Your task to perform on an android device: turn smart compose on in the gmail app Image 0: 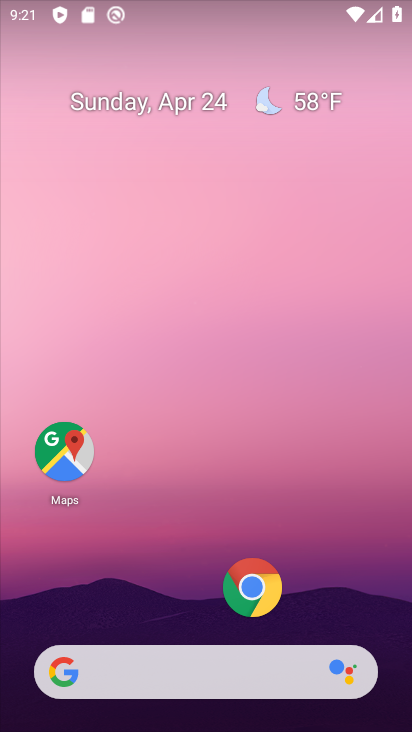
Step 0: drag from (120, 631) to (276, 117)
Your task to perform on an android device: turn smart compose on in the gmail app Image 1: 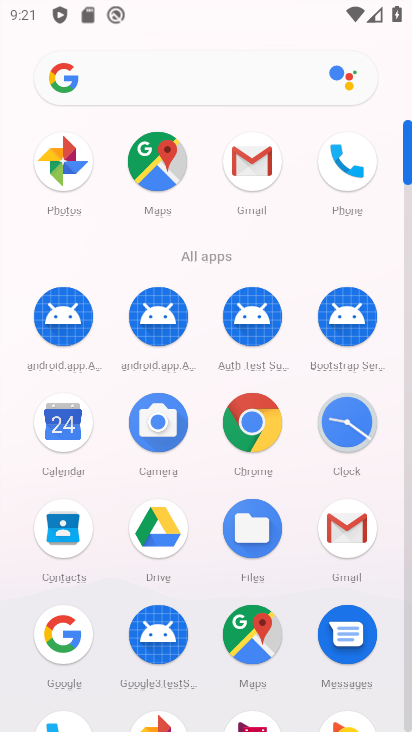
Step 1: click (336, 530)
Your task to perform on an android device: turn smart compose on in the gmail app Image 2: 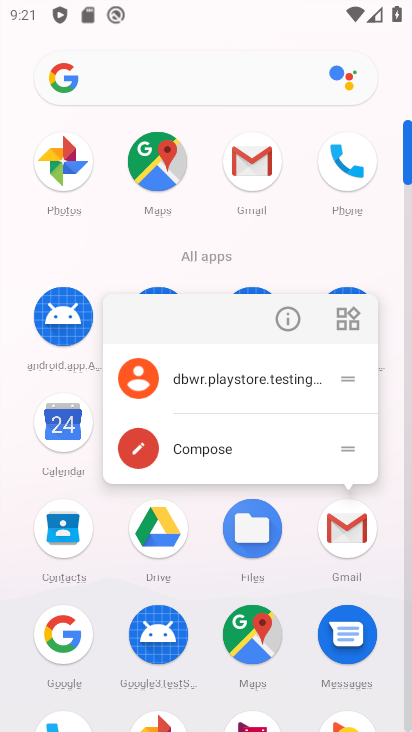
Step 2: click (343, 524)
Your task to perform on an android device: turn smart compose on in the gmail app Image 3: 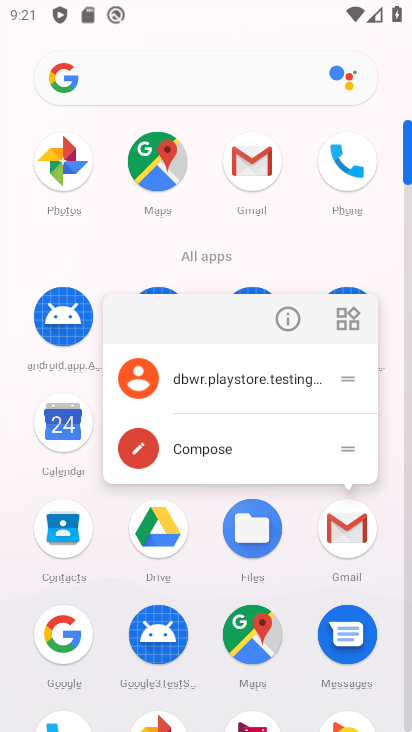
Step 3: click (346, 538)
Your task to perform on an android device: turn smart compose on in the gmail app Image 4: 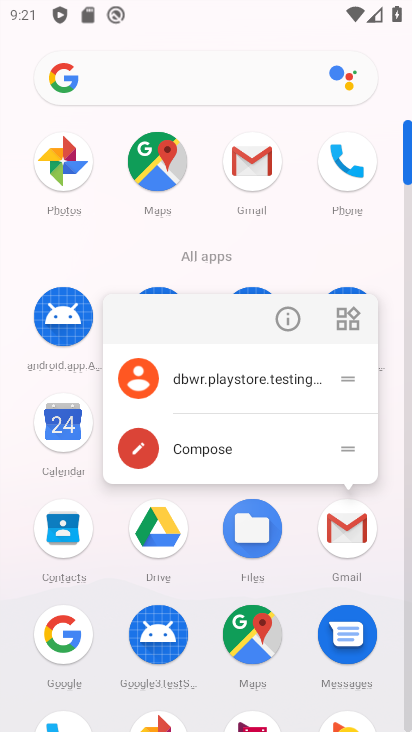
Step 4: click (345, 539)
Your task to perform on an android device: turn smart compose on in the gmail app Image 5: 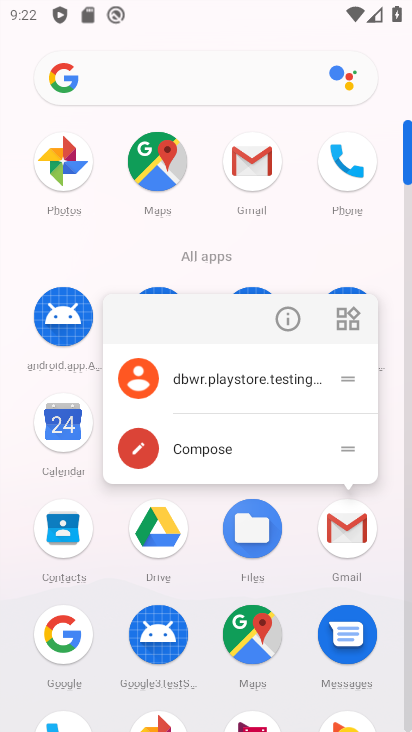
Step 5: click (361, 548)
Your task to perform on an android device: turn smart compose on in the gmail app Image 6: 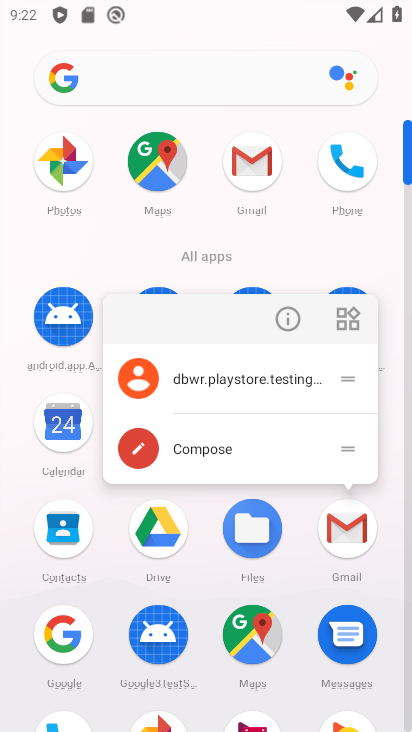
Step 6: click (358, 531)
Your task to perform on an android device: turn smart compose on in the gmail app Image 7: 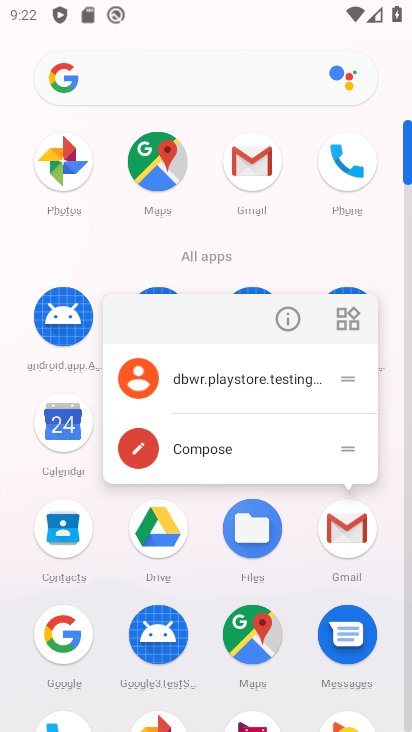
Step 7: click (334, 550)
Your task to perform on an android device: turn smart compose on in the gmail app Image 8: 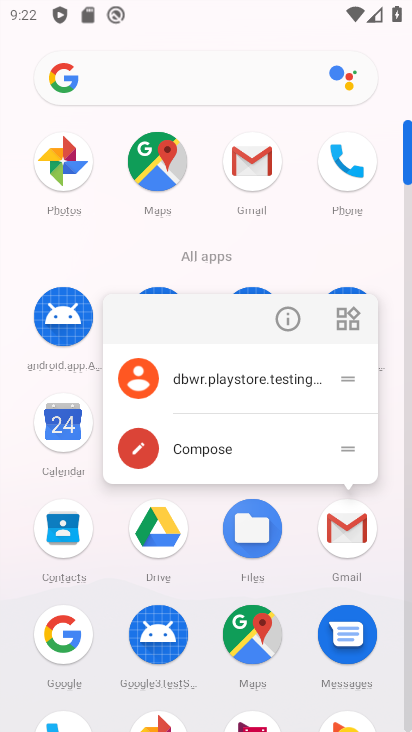
Step 8: click (356, 545)
Your task to perform on an android device: turn smart compose on in the gmail app Image 9: 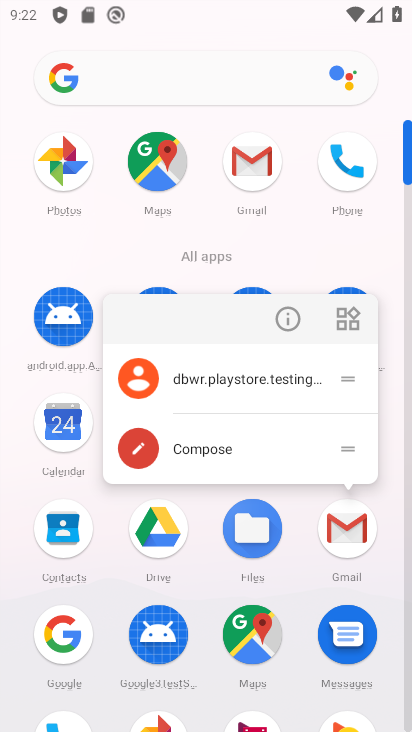
Step 9: click (386, 528)
Your task to perform on an android device: turn smart compose on in the gmail app Image 10: 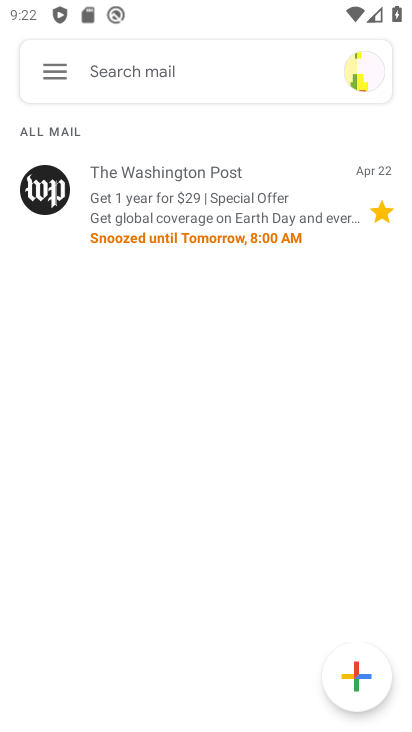
Step 10: click (52, 70)
Your task to perform on an android device: turn smart compose on in the gmail app Image 11: 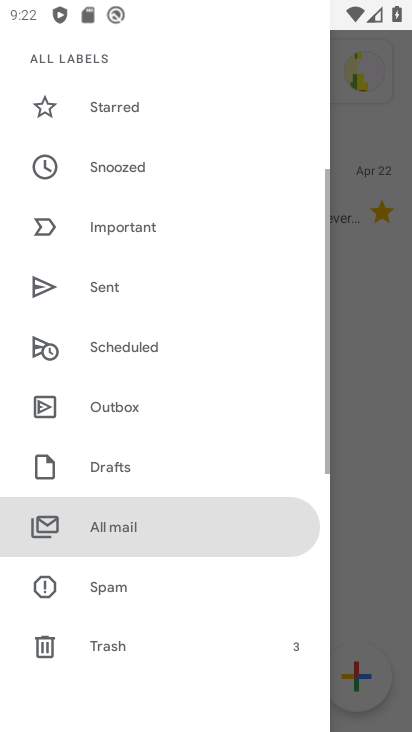
Step 11: drag from (120, 562) to (194, 178)
Your task to perform on an android device: turn smart compose on in the gmail app Image 12: 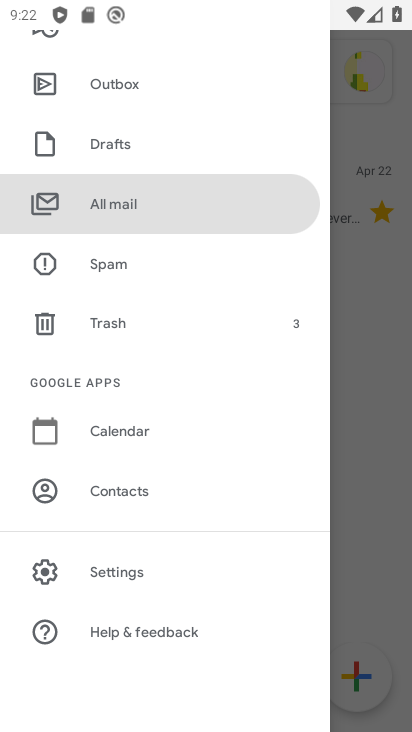
Step 12: click (161, 569)
Your task to perform on an android device: turn smart compose on in the gmail app Image 13: 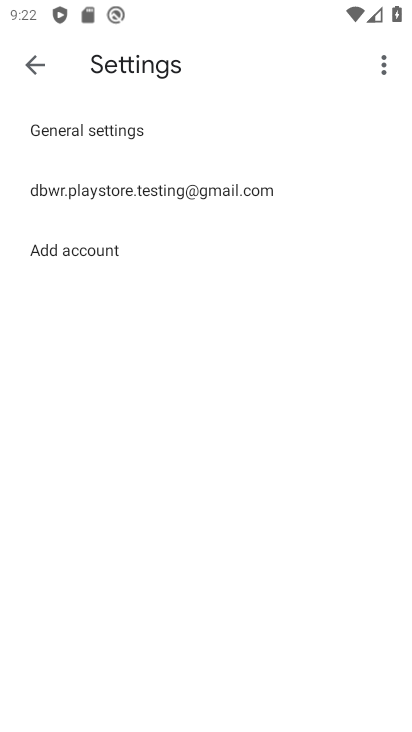
Step 13: click (237, 190)
Your task to perform on an android device: turn smart compose on in the gmail app Image 14: 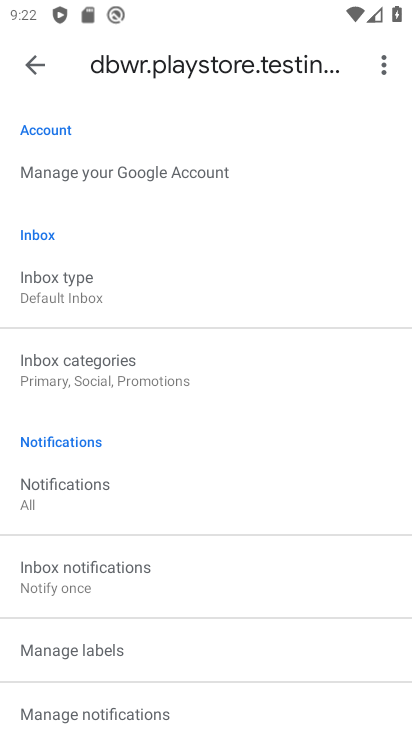
Step 14: task complete